Your task to perform on an android device: toggle location history Image 0: 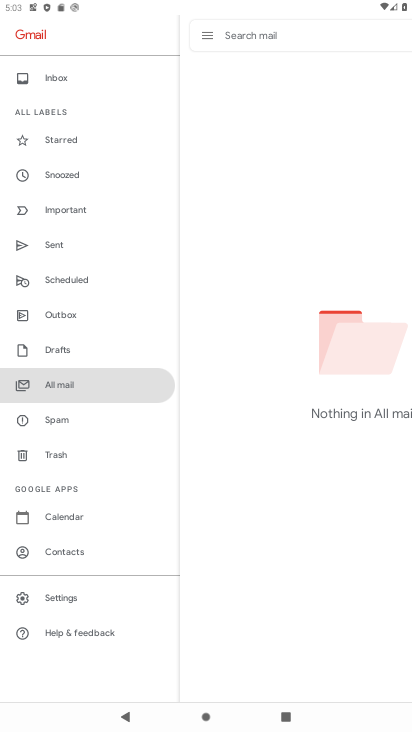
Step 0: press home button
Your task to perform on an android device: toggle location history Image 1: 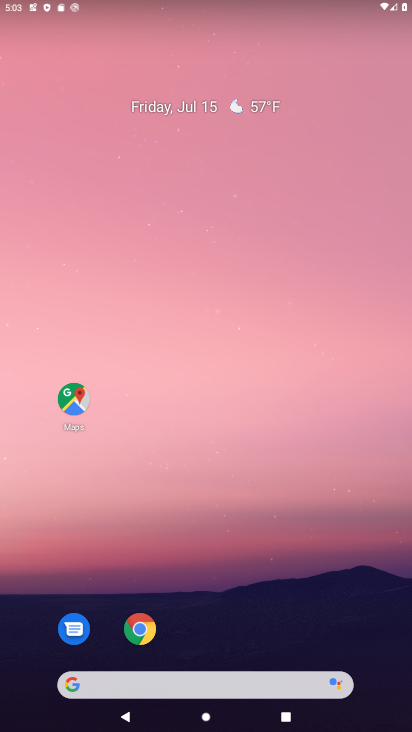
Step 1: drag from (257, 632) to (276, 114)
Your task to perform on an android device: toggle location history Image 2: 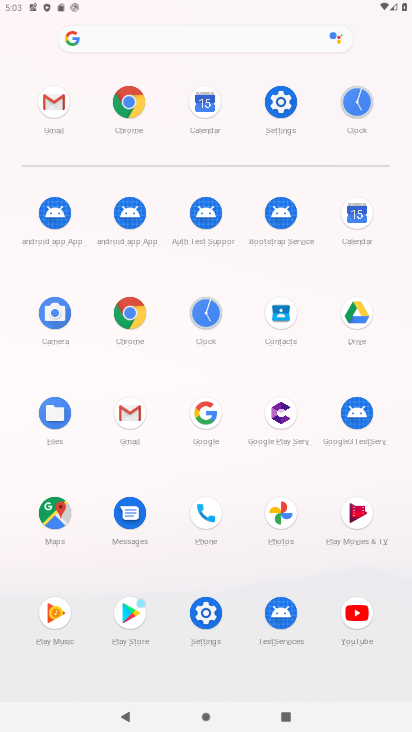
Step 2: click (289, 105)
Your task to perform on an android device: toggle location history Image 3: 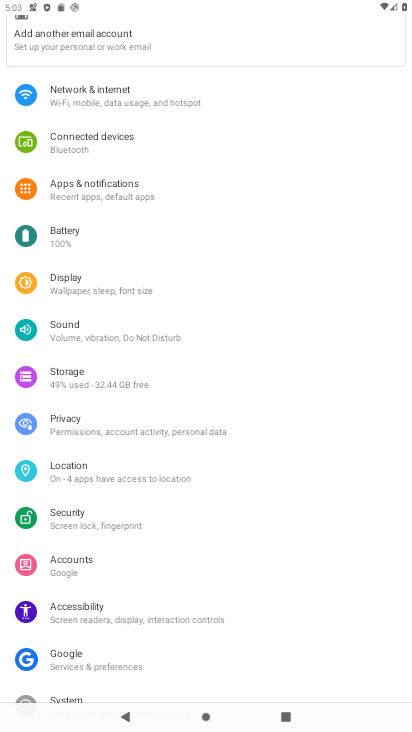
Step 3: click (57, 478)
Your task to perform on an android device: toggle location history Image 4: 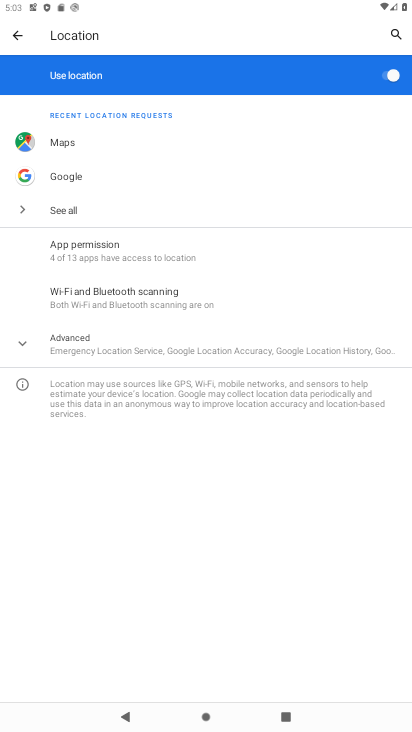
Step 4: click (11, 338)
Your task to perform on an android device: toggle location history Image 5: 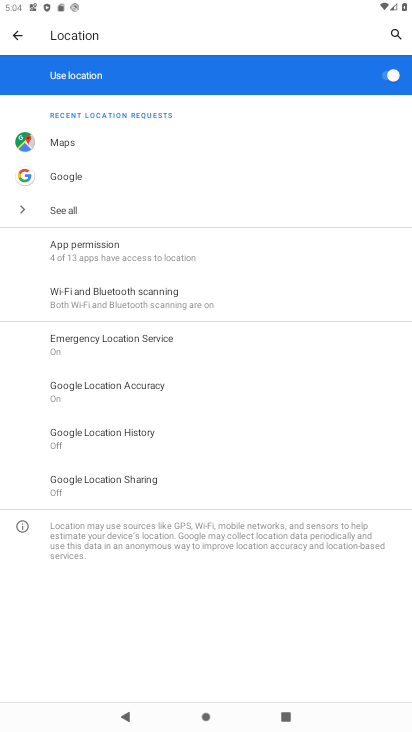
Step 5: click (147, 433)
Your task to perform on an android device: toggle location history Image 6: 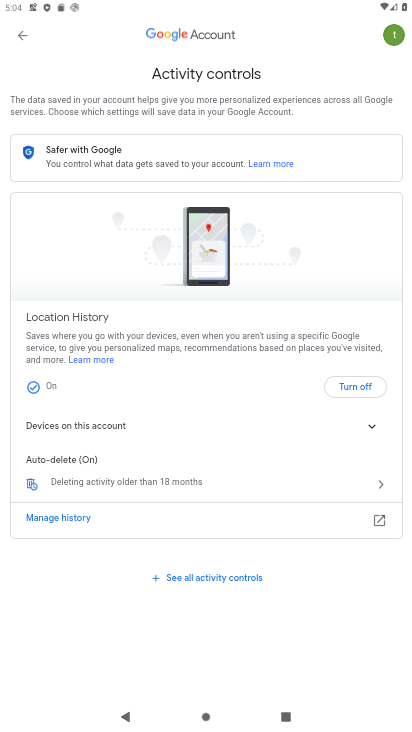
Step 6: click (364, 382)
Your task to perform on an android device: toggle location history Image 7: 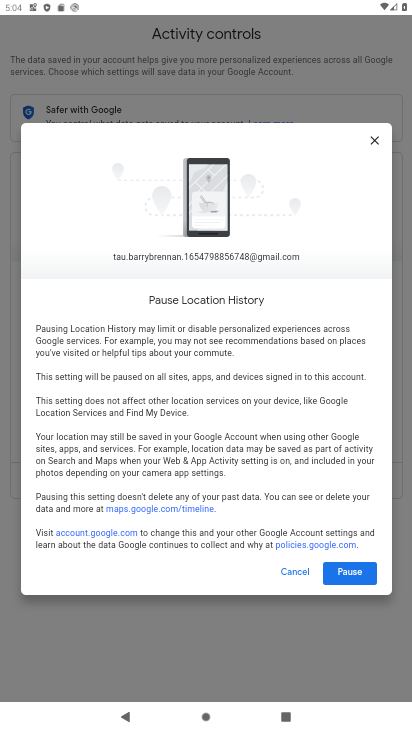
Step 7: click (342, 580)
Your task to perform on an android device: toggle location history Image 8: 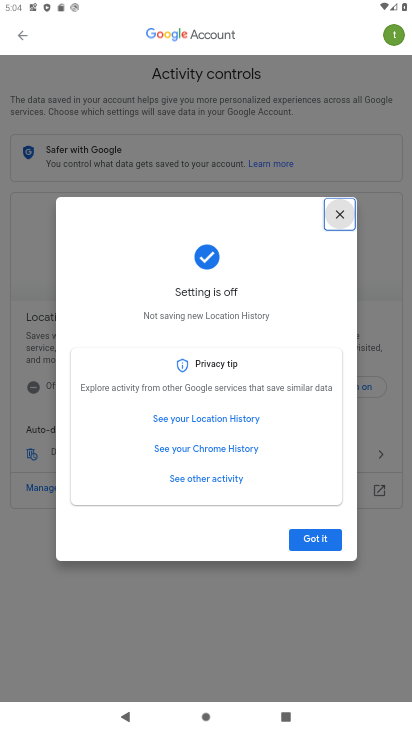
Step 8: click (326, 543)
Your task to perform on an android device: toggle location history Image 9: 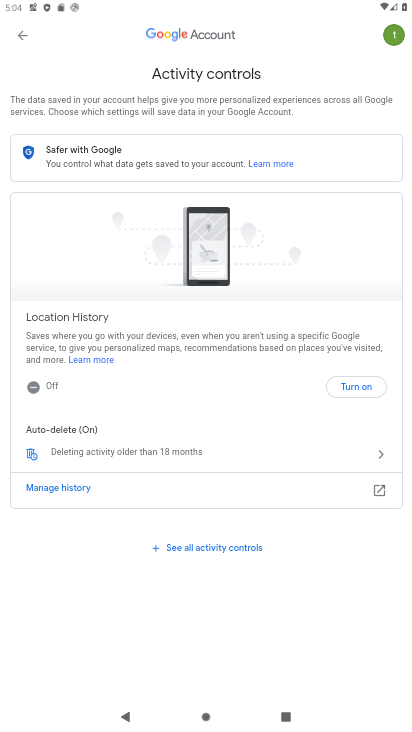
Step 9: task complete